Your task to perform on an android device: Go to wifi settings Image 0: 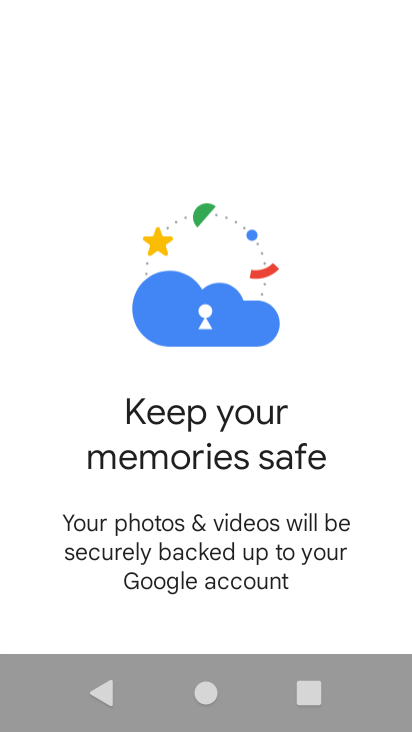
Step 0: press home button
Your task to perform on an android device: Go to wifi settings Image 1: 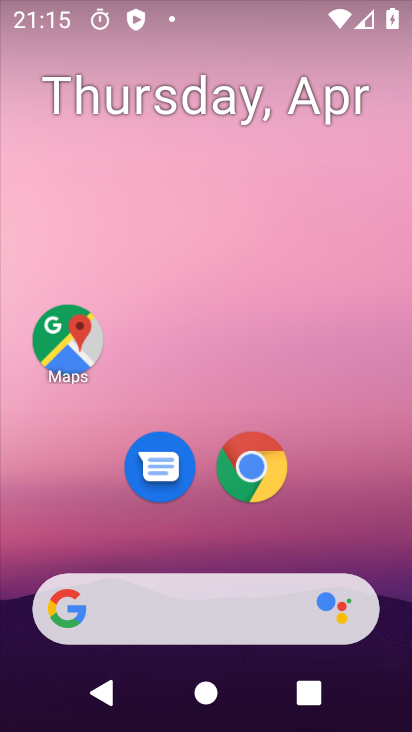
Step 1: drag from (202, 548) to (166, 10)
Your task to perform on an android device: Go to wifi settings Image 2: 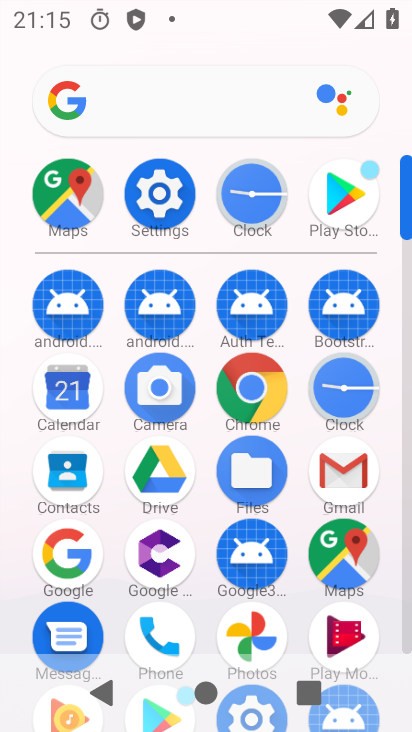
Step 2: click (172, 202)
Your task to perform on an android device: Go to wifi settings Image 3: 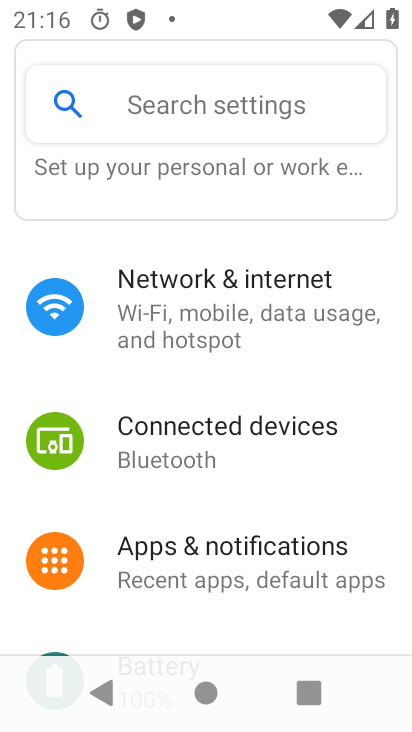
Step 3: drag from (170, 238) to (169, 530)
Your task to perform on an android device: Go to wifi settings Image 4: 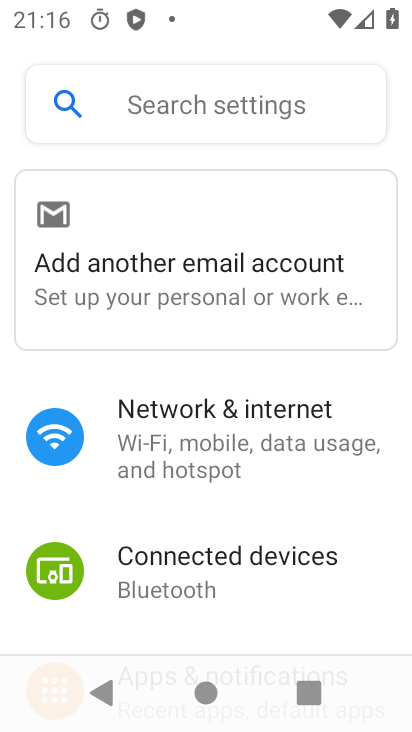
Step 4: click (177, 438)
Your task to perform on an android device: Go to wifi settings Image 5: 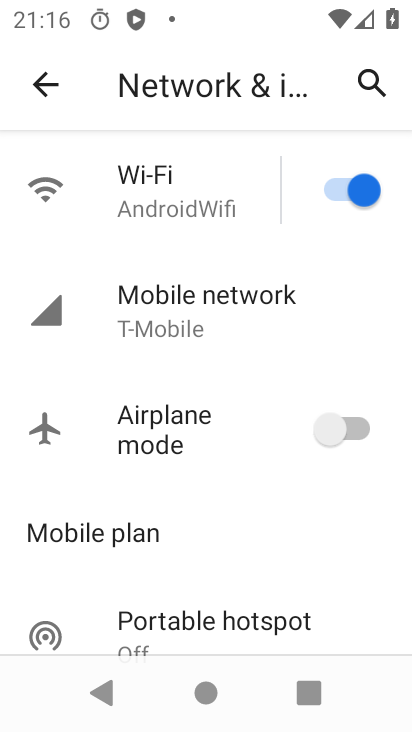
Step 5: click (180, 205)
Your task to perform on an android device: Go to wifi settings Image 6: 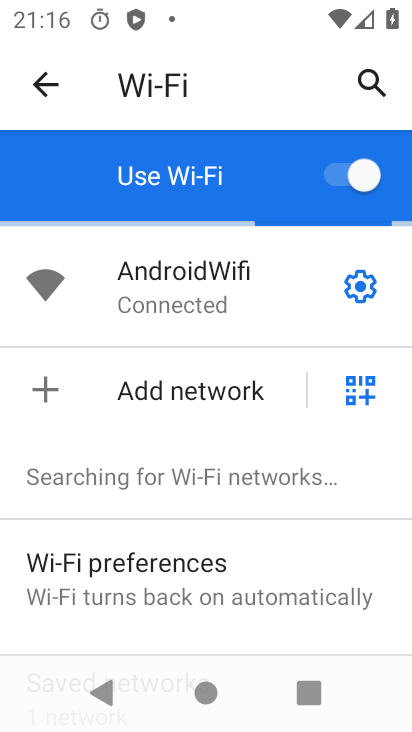
Step 6: task complete